Your task to perform on an android device: What's the weather going to be this weekend? Image 0: 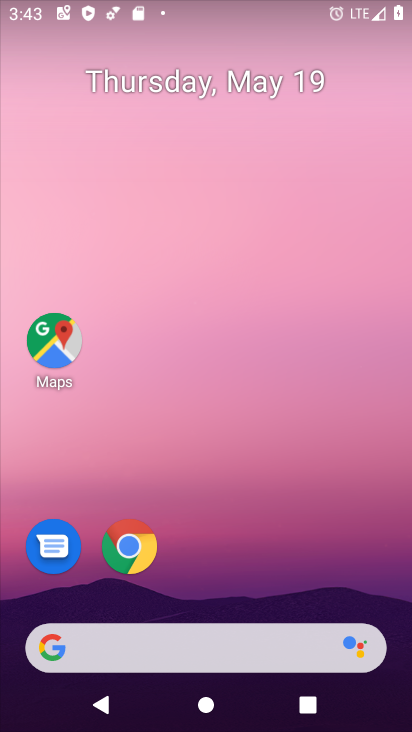
Step 0: drag from (213, 600) to (204, 105)
Your task to perform on an android device: What's the weather going to be this weekend? Image 1: 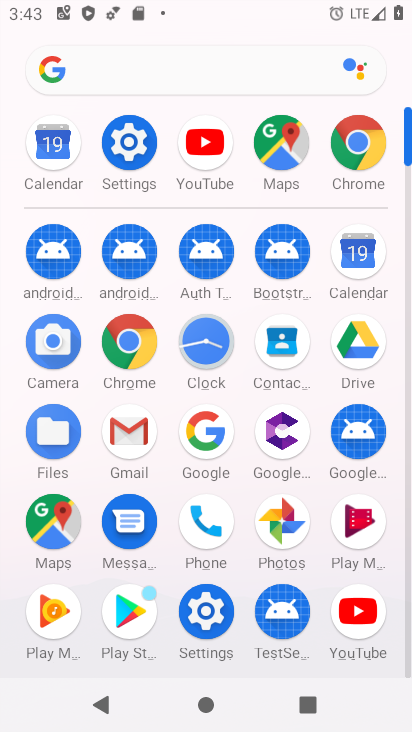
Step 1: press back button
Your task to perform on an android device: What's the weather going to be this weekend? Image 2: 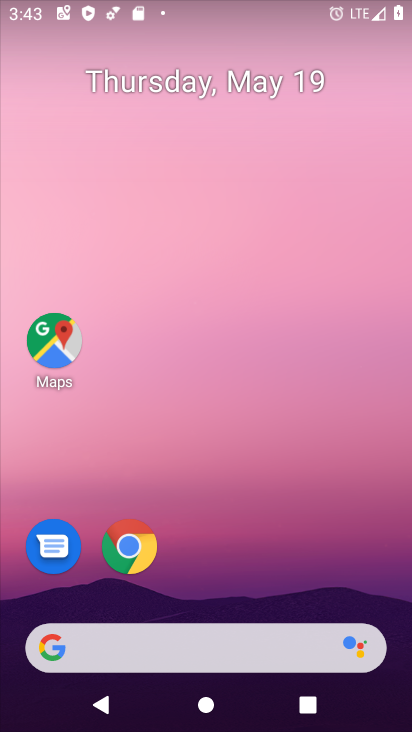
Step 2: drag from (10, 245) to (411, 281)
Your task to perform on an android device: What's the weather going to be this weekend? Image 3: 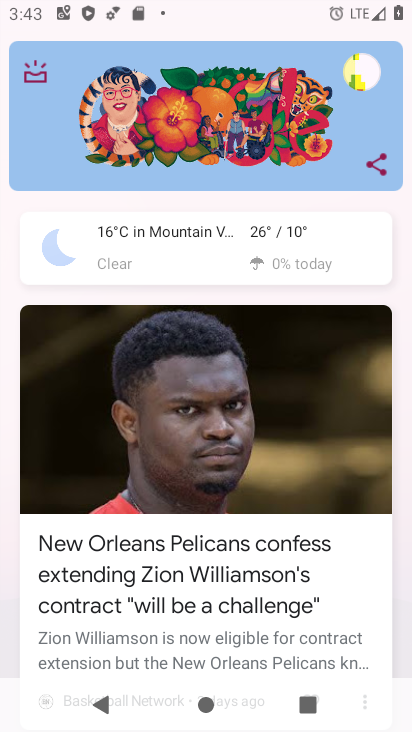
Step 3: click (291, 233)
Your task to perform on an android device: What's the weather going to be this weekend? Image 4: 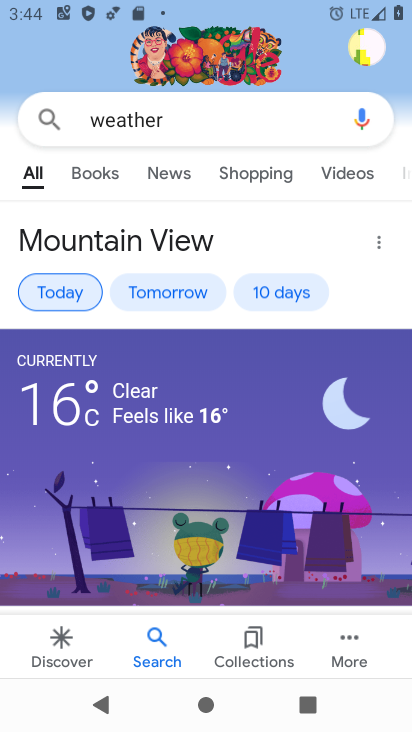
Step 4: click (273, 294)
Your task to perform on an android device: What's the weather going to be this weekend? Image 5: 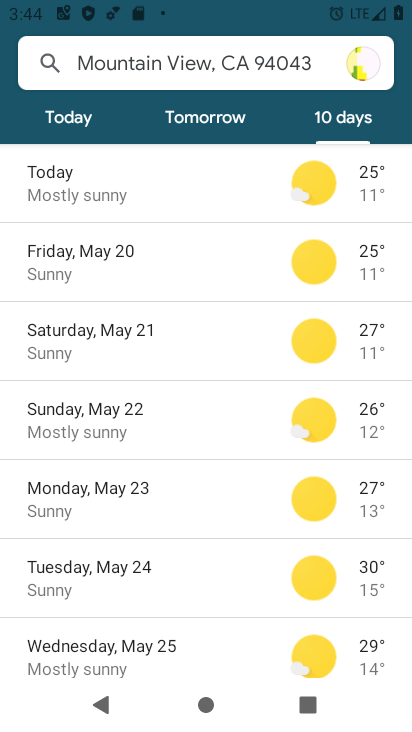
Step 5: task complete